Your task to perform on an android device: turn off wifi Image 0: 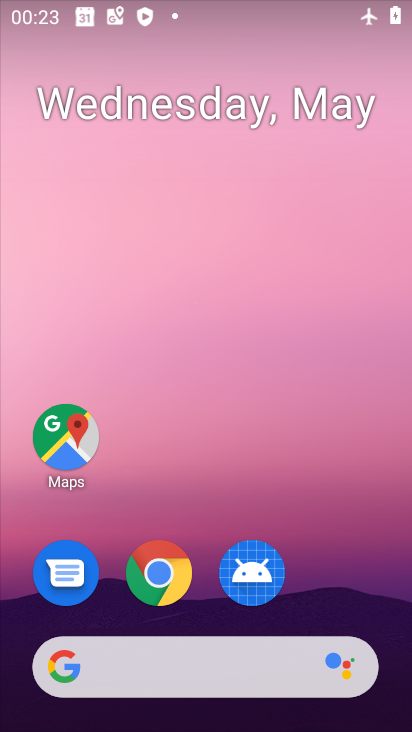
Step 0: drag from (322, 563) to (230, 83)
Your task to perform on an android device: turn off wifi Image 1: 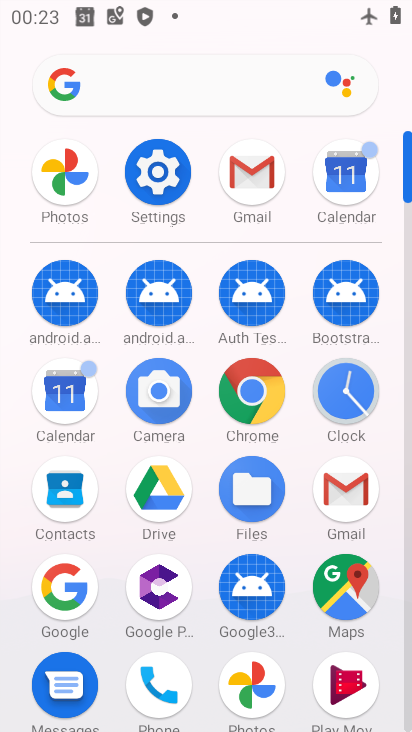
Step 1: click (158, 170)
Your task to perform on an android device: turn off wifi Image 2: 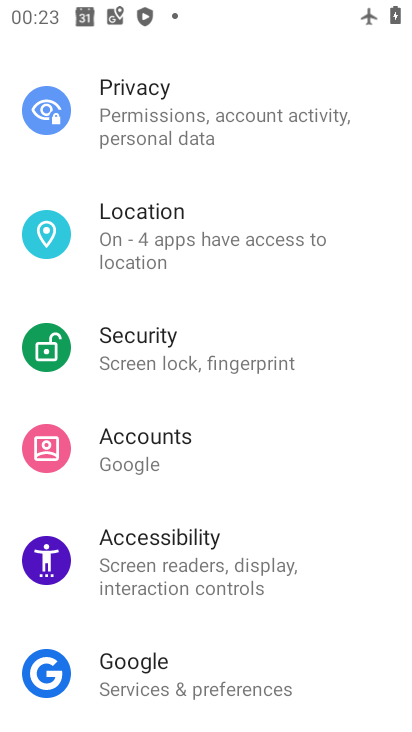
Step 2: drag from (198, 170) to (177, 610)
Your task to perform on an android device: turn off wifi Image 3: 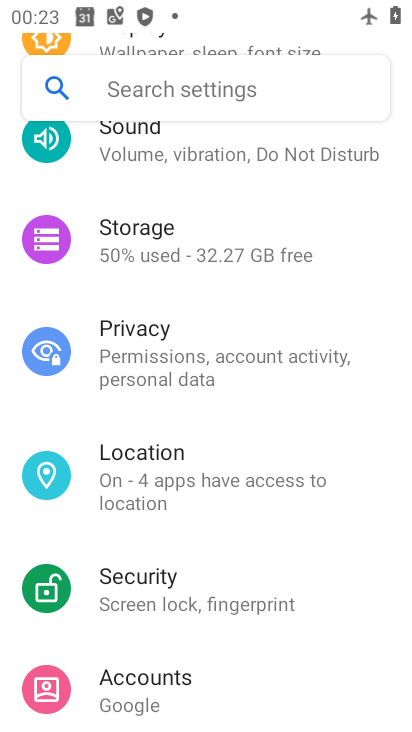
Step 3: drag from (228, 210) to (156, 727)
Your task to perform on an android device: turn off wifi Image 4: 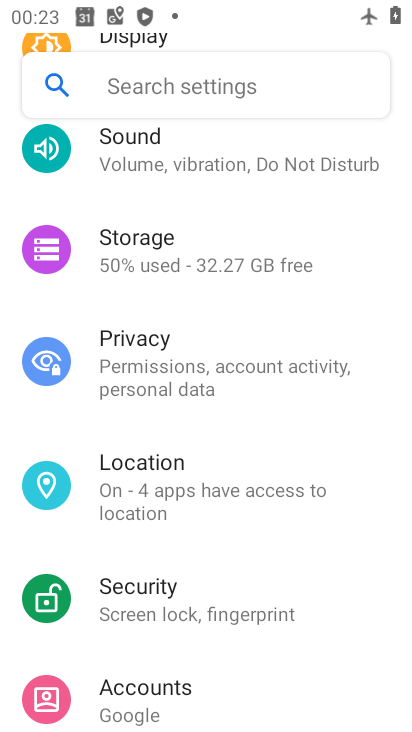
Step 4: drag from (211, 201) to (182, 527)
Your task to perform on an android device: turn off wifi Image 5: 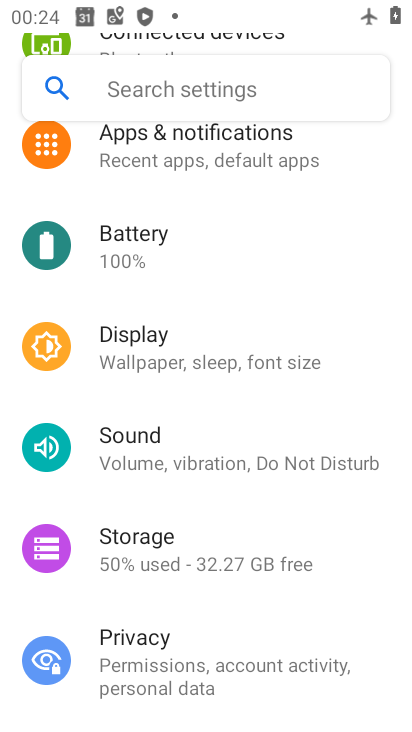
Step 5: drag from (188, 201) to (162, 549)
Your task to perform on an android device: turn off wifi Image 6: 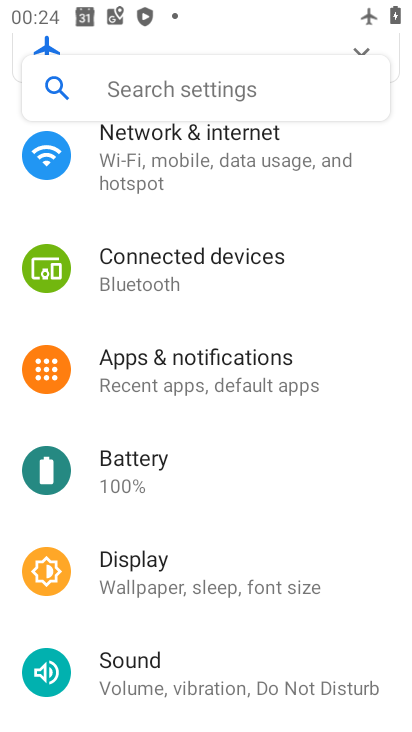
Step 6: drag from (197, 200) to (215, 571)
Your task to perform on an android device: turn off wifi Image 7: 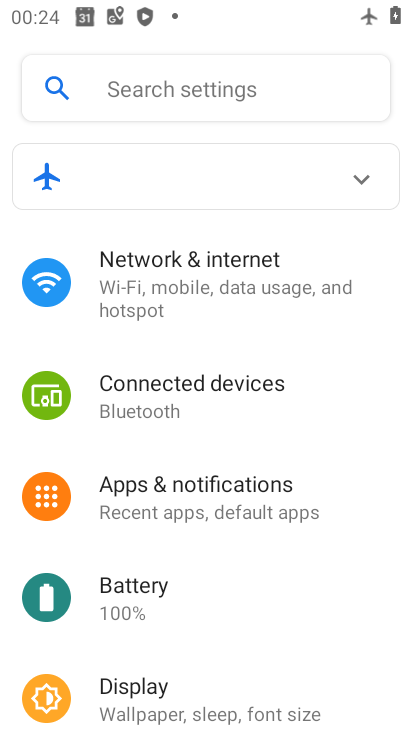
Step 7: click (196, 261)
Your task to perform on an android device: turn off wifi Image 8: 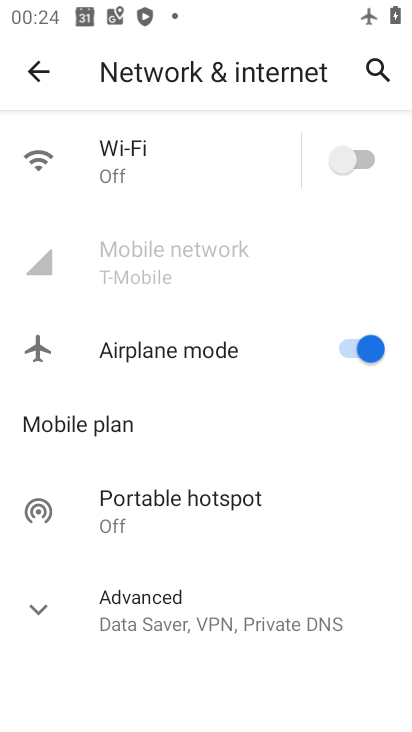
Step 8: task complete